Your task to perform on an android device: Open my contact list Image 0: 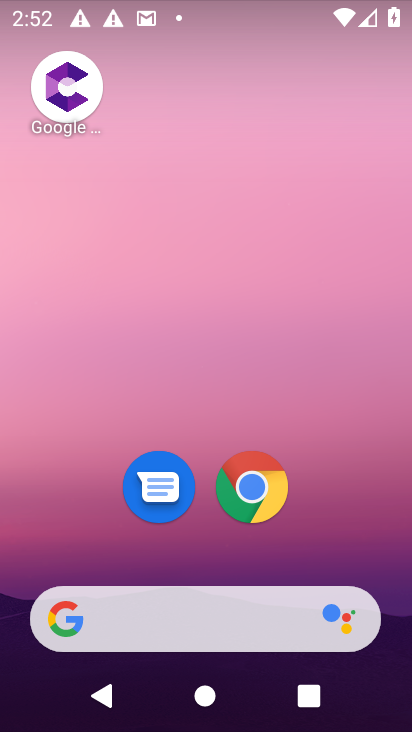
Step 0: drag from (207, 589) to (211, 293)
Your task to perform on an android device: Open my contact list Image 1: 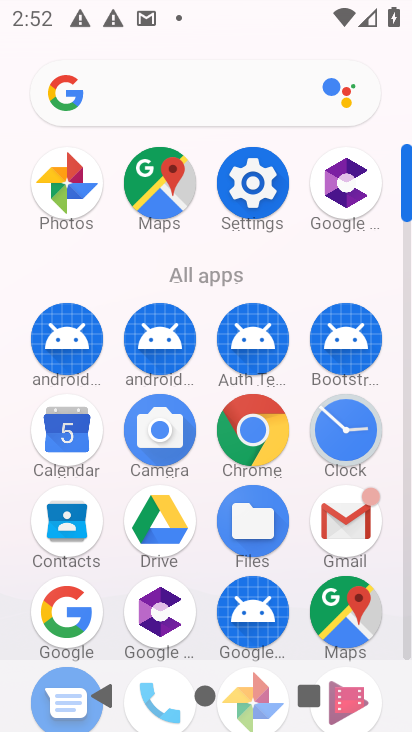
Step 1: drag from (201, 600) to (213, 320)
Your task to perform on an android device: Open my contact list Image 2: 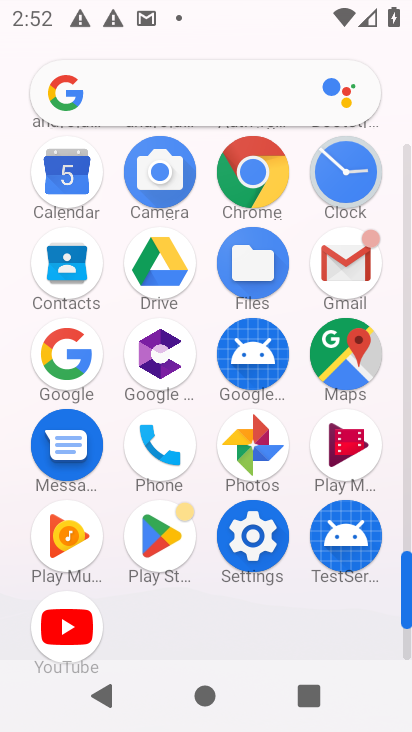
Step 2: click (63, 255)
Your task to perform on an android device: Open my contact list Image 3: 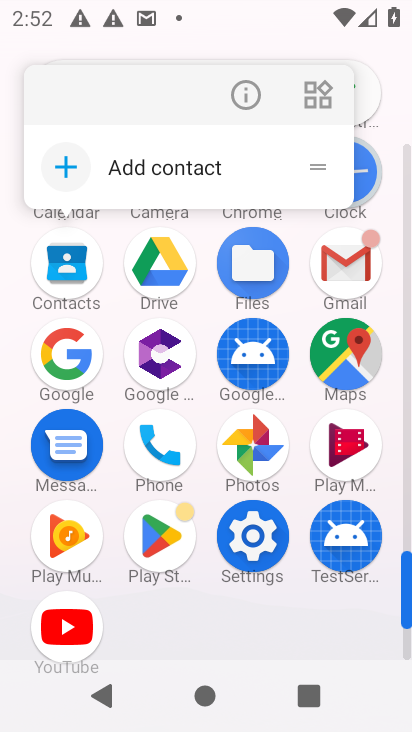
Step 3: click (79, 253)
Your task to perform on an android device: Open my contact list Image 4: 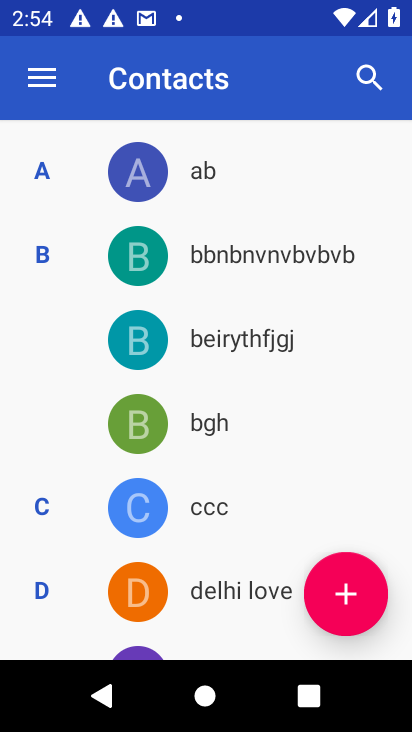
Step 4: task complete